Your task to perform on an android device: Add lenovo thinkpad to the cart on bestbuy.com Image 0: 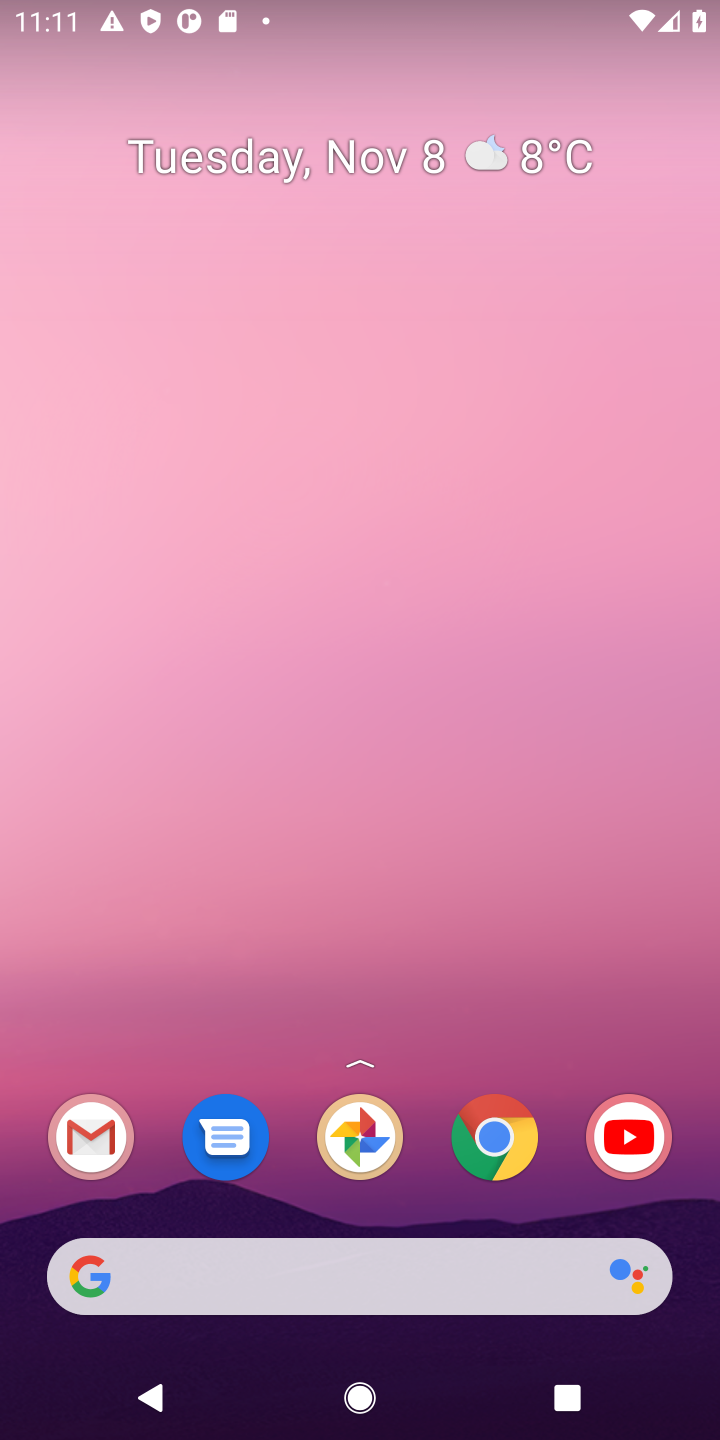
Step 0: click (473, 1138)
Your task to perform on an android device: Add lenovo thinkpad to the cart on bestbuy.com Image 1: 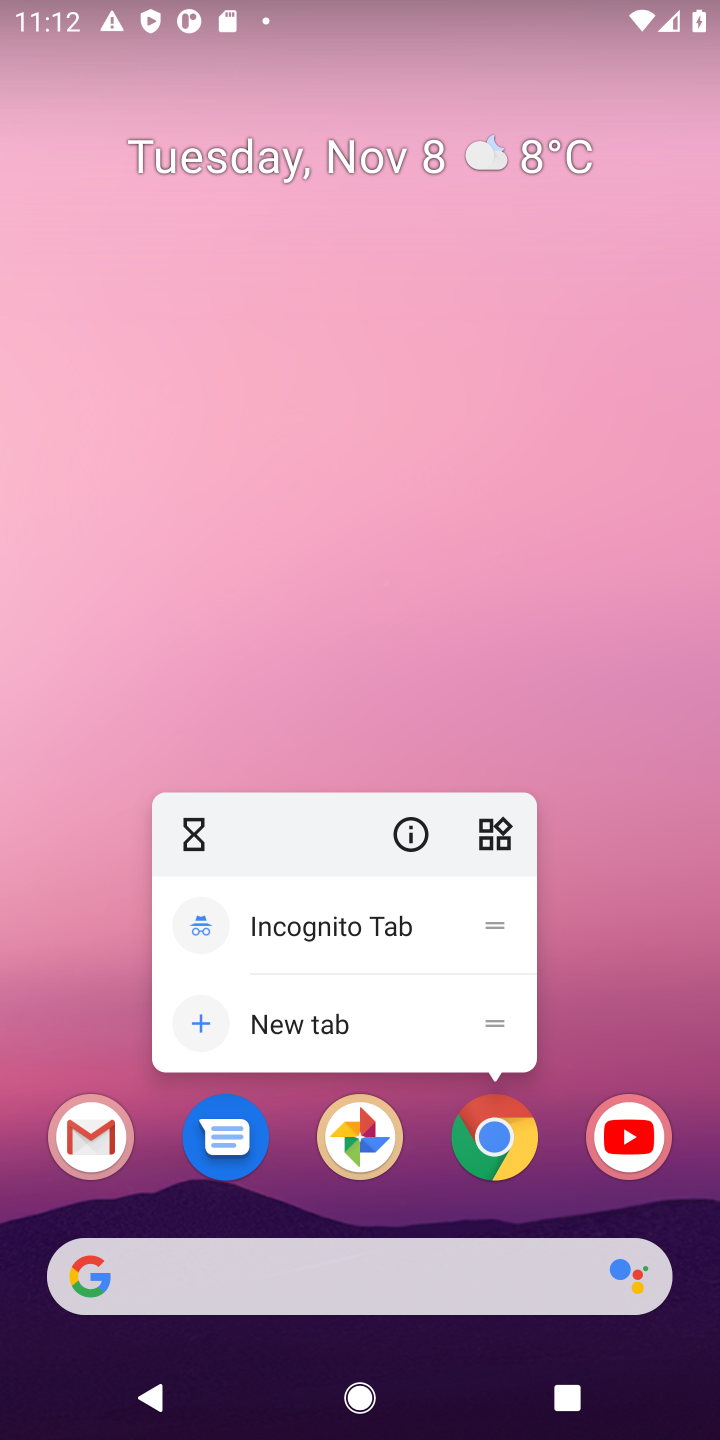
Step 1: click (490, 1134)
Your task to perform on an android device: Add lenovo thinkpad to the cart on bestbuy.com Image 2: 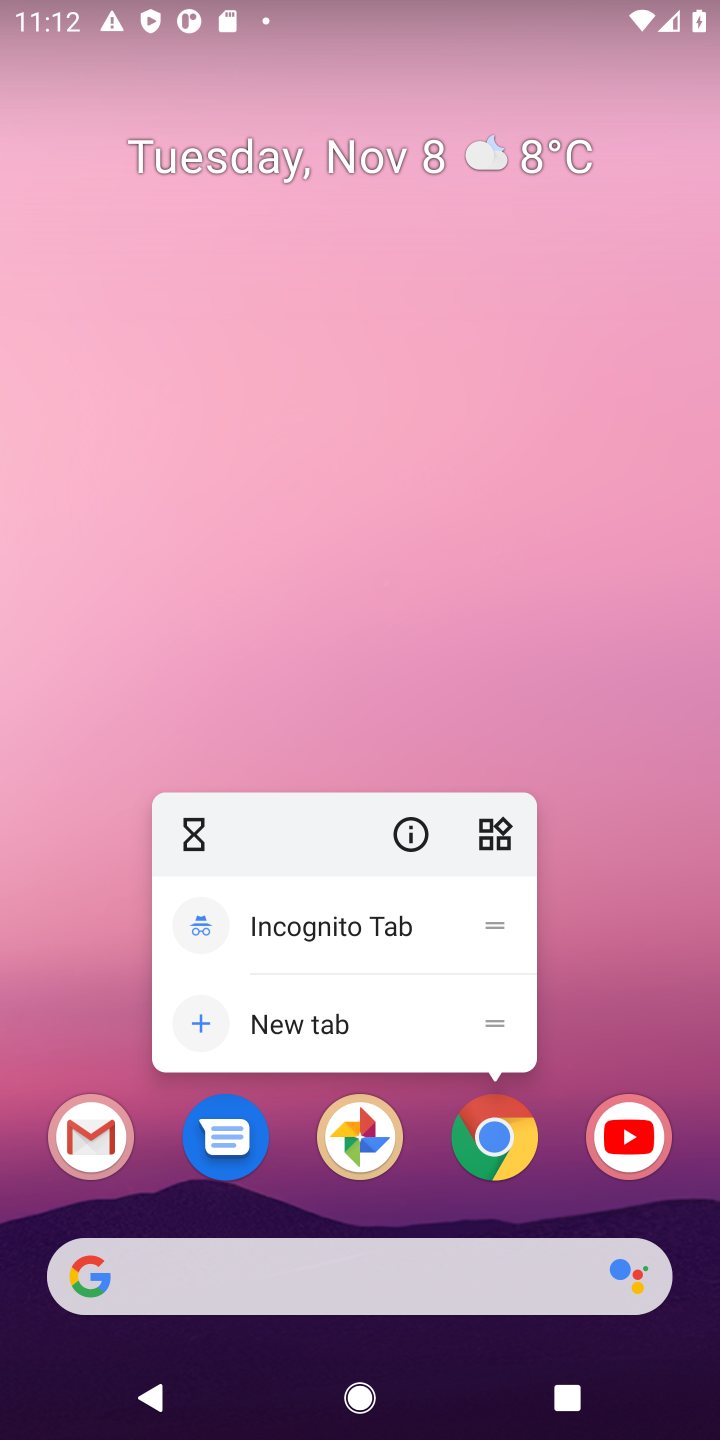
Step 2: click (477, 1156)
Your task to perform on an android device: Add lenovo thinkpad to the cart on bestbuy.com Image 3: 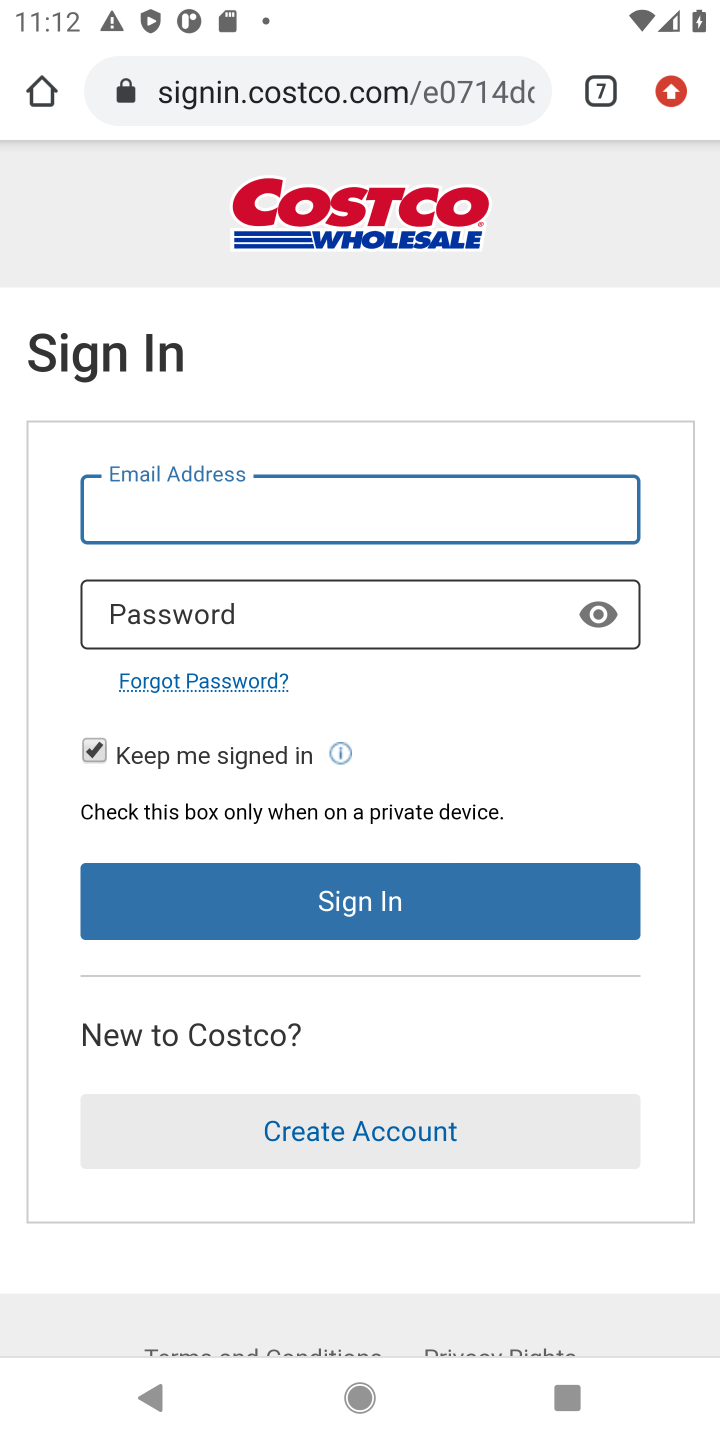
Step 3: click (595, 76)
Your task to perform on an android device: Add lenovo thinkpad to the cart on bestbuy.com Image 4: 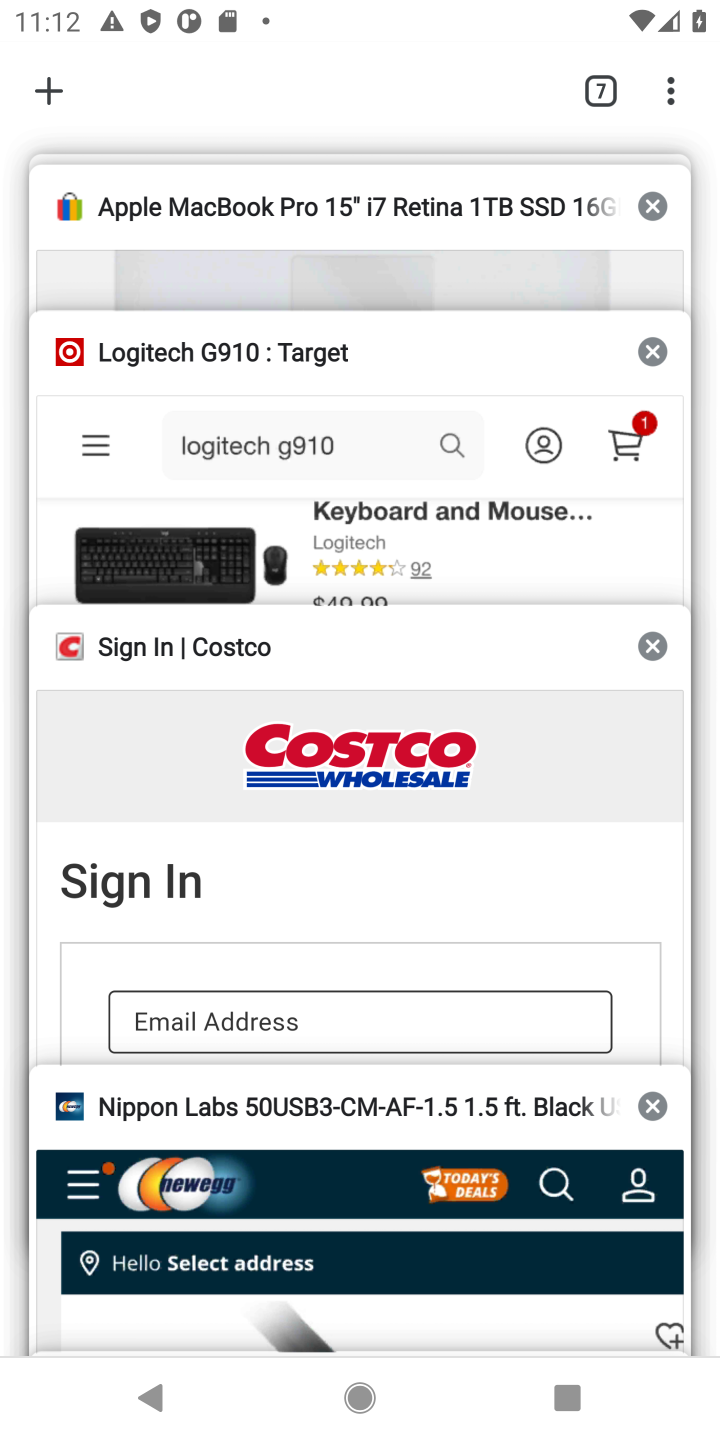
Step 4: drag from (233, 176) to (224, 452)
Your task to perform on an android device: Add lenovo thinkpad to the cart on bestbuy.com Image 5: 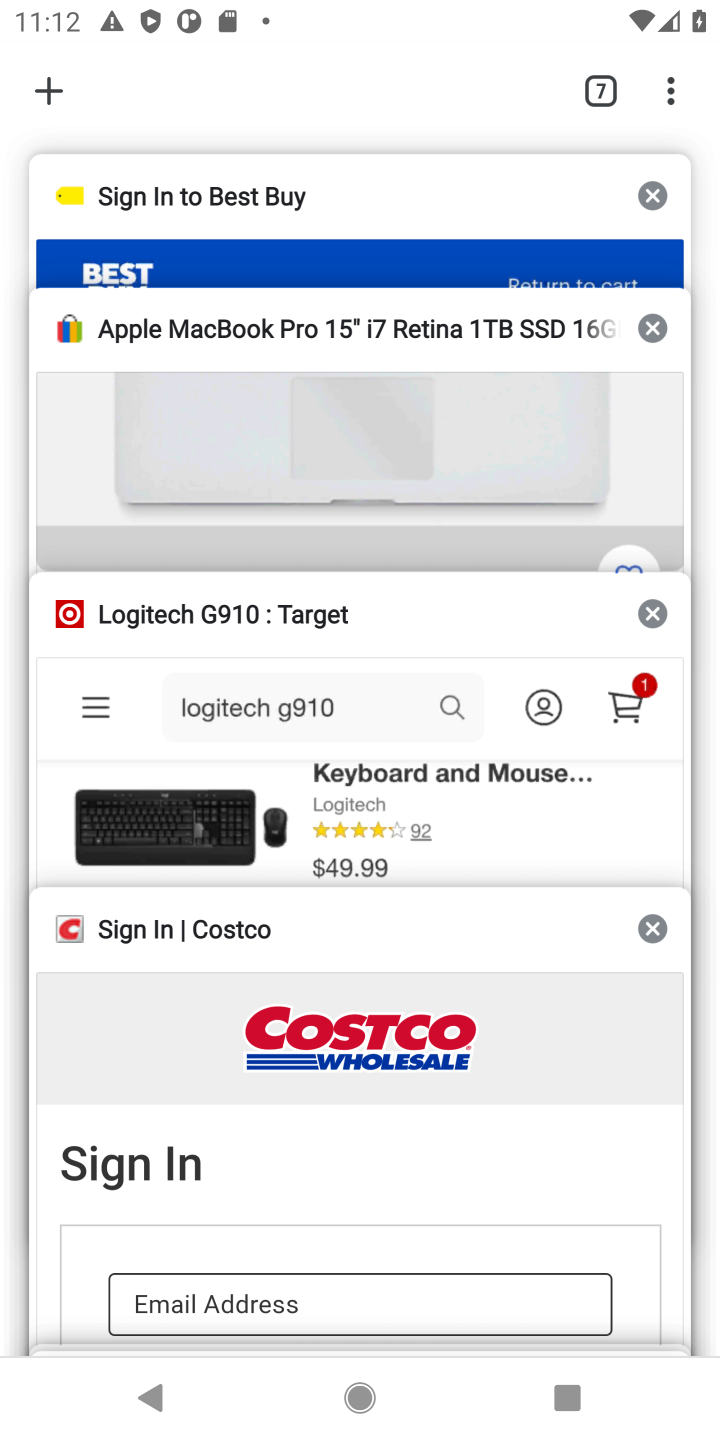
Step 5: click (296, 216)
Your task to perform on an android device: Add lenovo thinkpad to the cart on bestbuy.com Image 6: 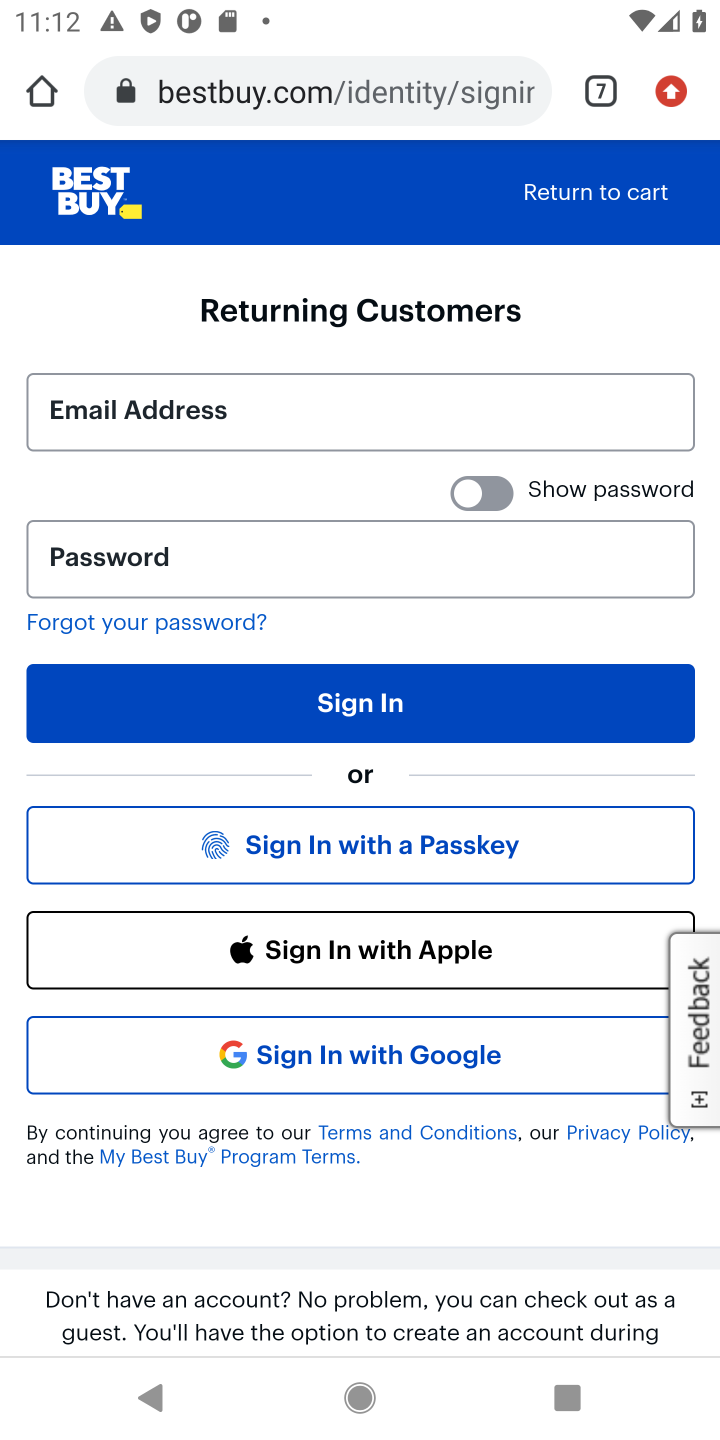
Step 6: click (620, 181)
Your task to perform on an android device: Add lenovo thinkpad to the cart on bestbuy.com Image 7: 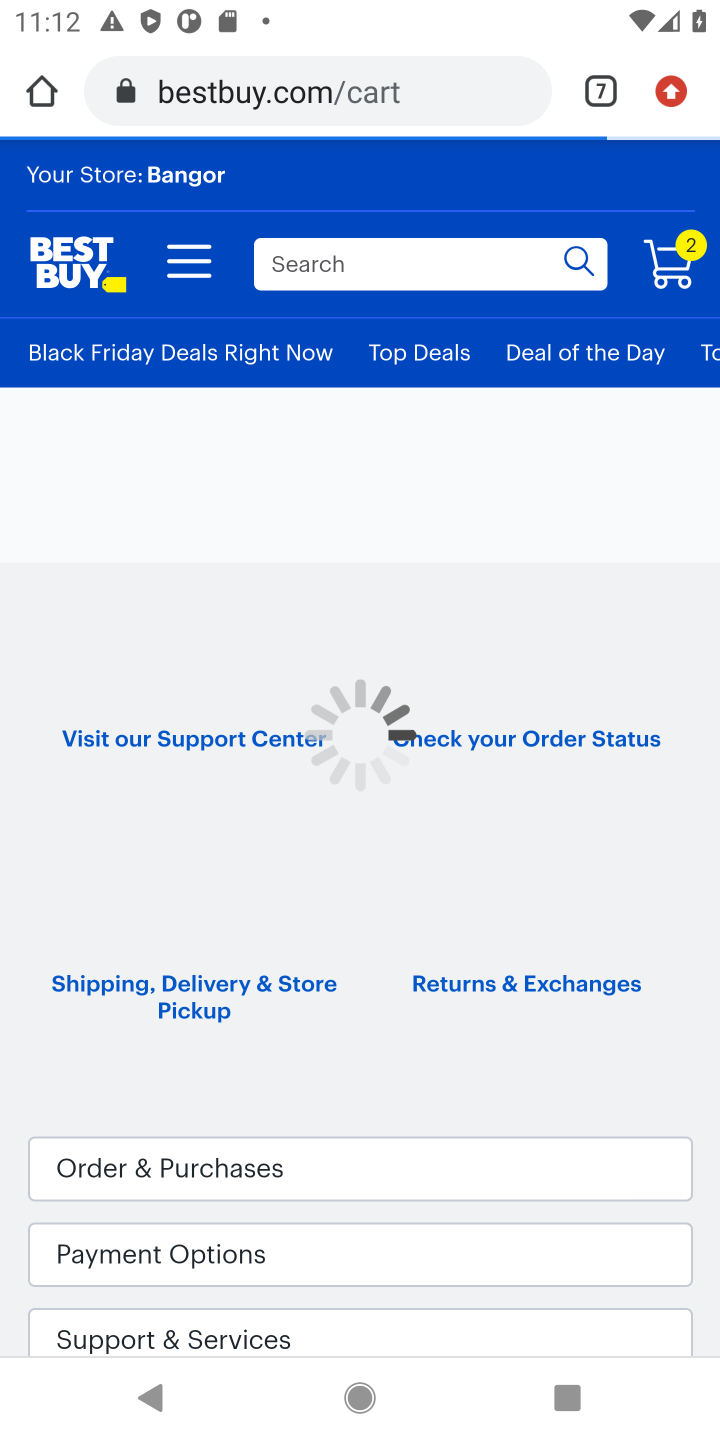
Step 7: click (432, 273)
Your task to perform on an android device: Add lenovo thinkpad to the cart on bestbuy.com Image 8: 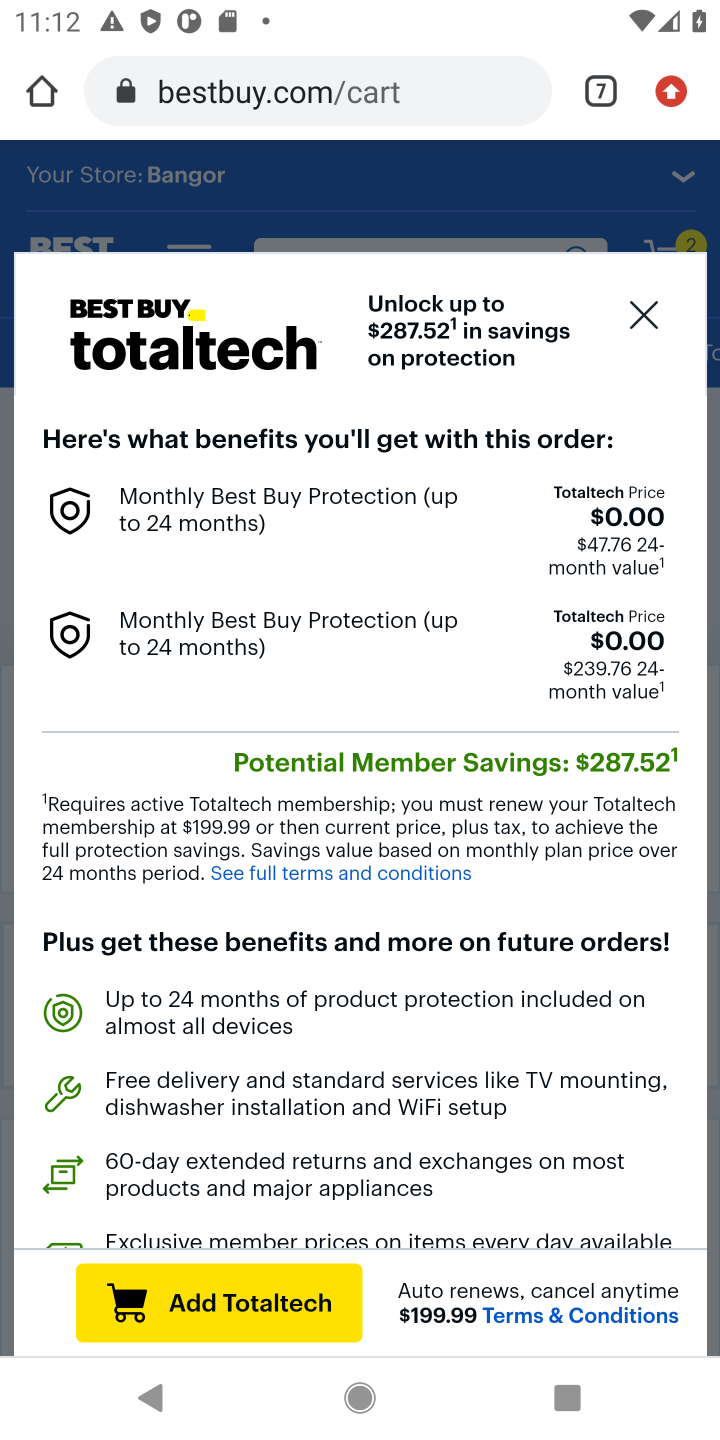
Step 8: type "lenovo thinkpad"
Your task to perform on an android device: Add lenovo thinkpad to the cart on bestbuy.com Image 9: 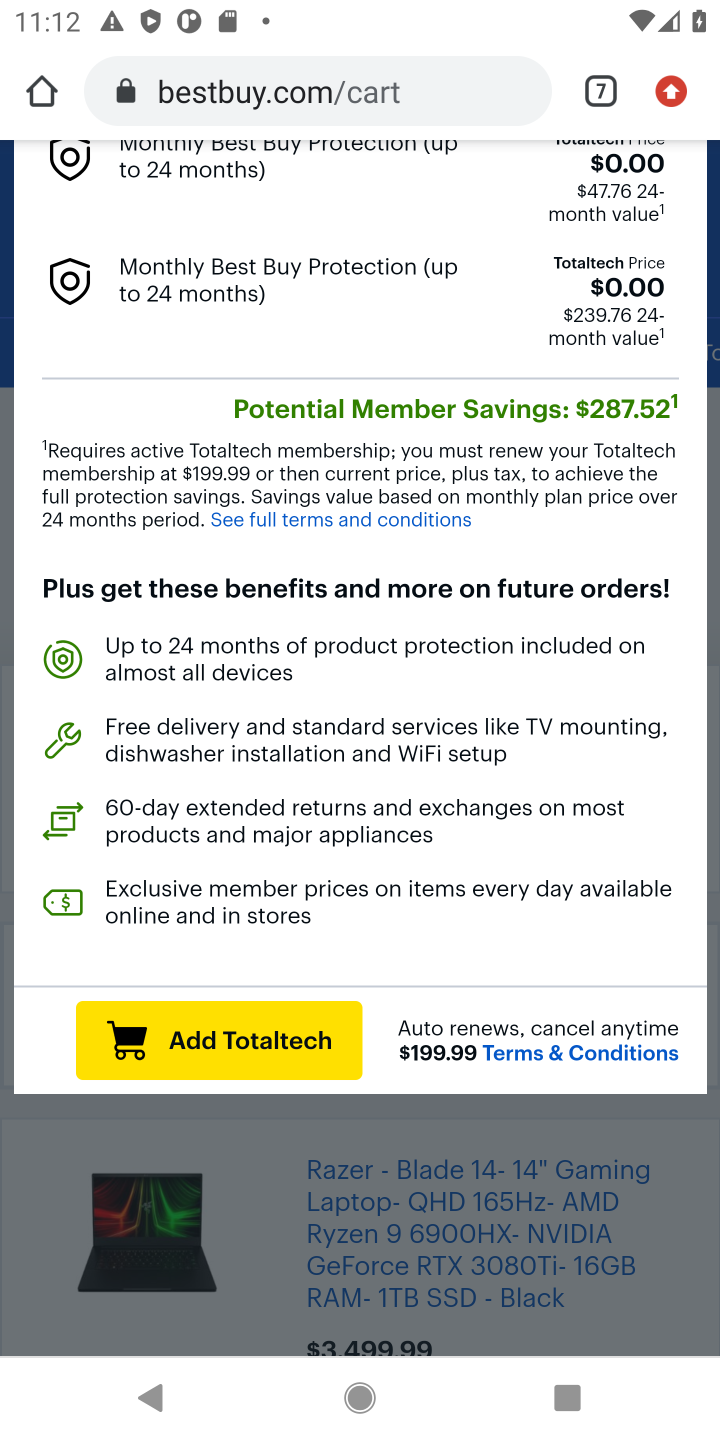
Step 9: drag from (515, 592) to (498, 1032)
Your task to perform on an android device: Add lenovo thinkpad to the cart on bestbuy.com Image 10: 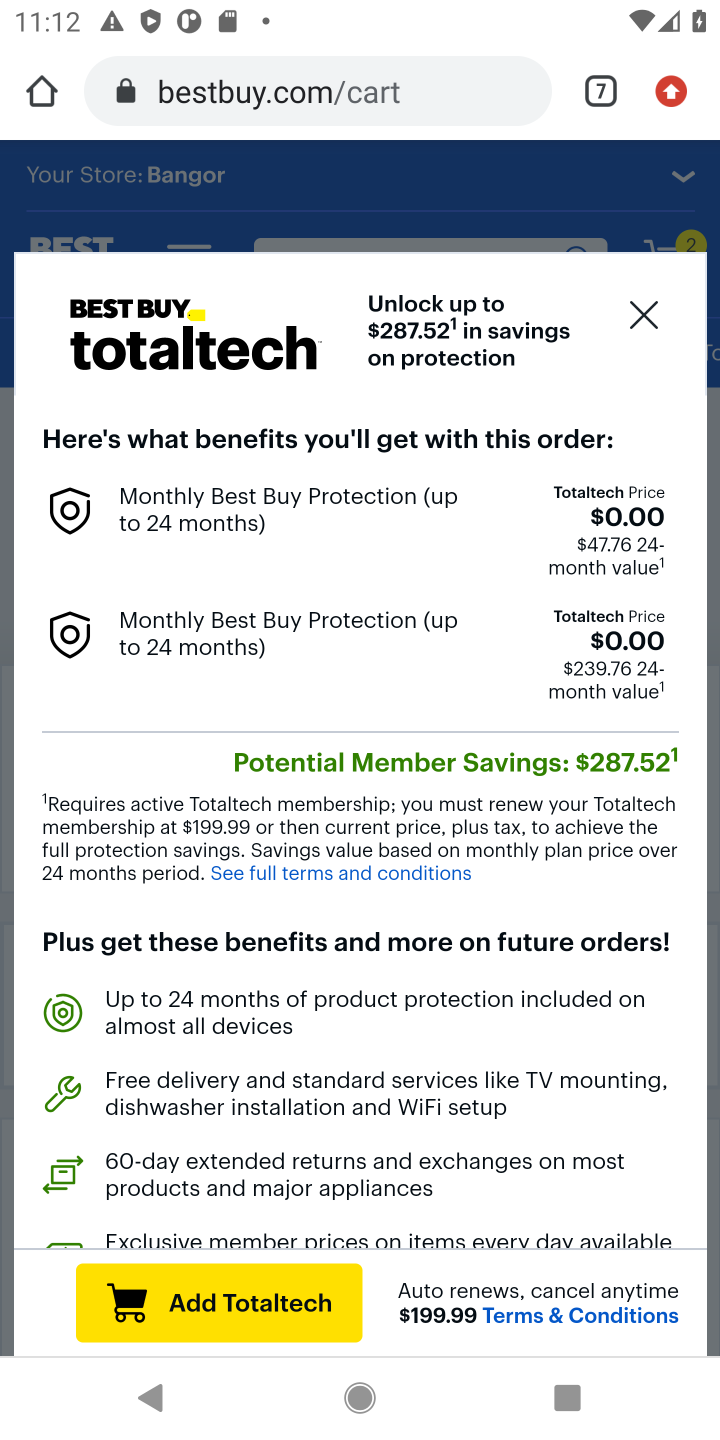
Step 10: click (639, 308)
Your task to perform on an android device: Add lenovo thinkpad to the cart on bestbuy.com Image 11: 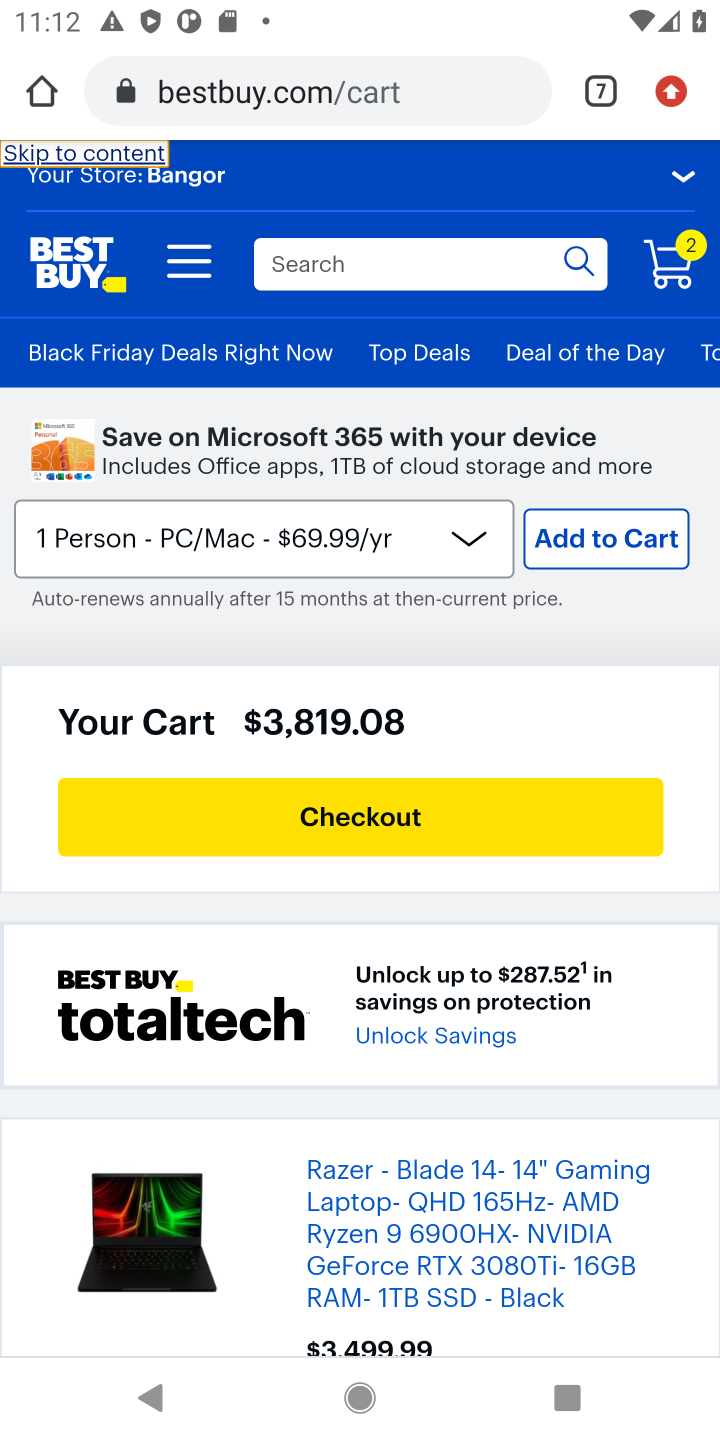
Step 11: click (407, 266)
Your task to perform on an android device: Add lenovo thinkpad to the cart on bestbuy.com Image 12: 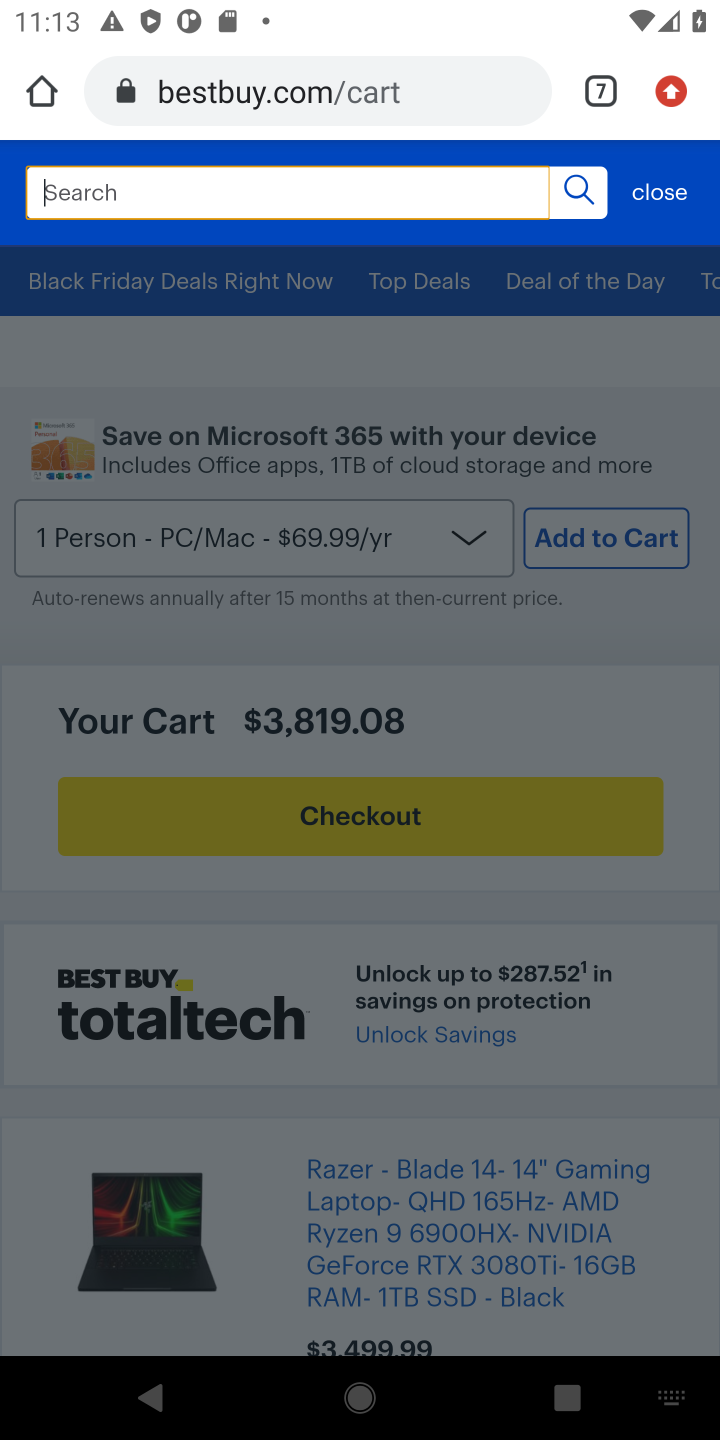
Step 12: type "lenovo thinkpad"
Your task to perform on an android device: Add lenovo thinkpad to the cart on bestbuy.com Image 13: 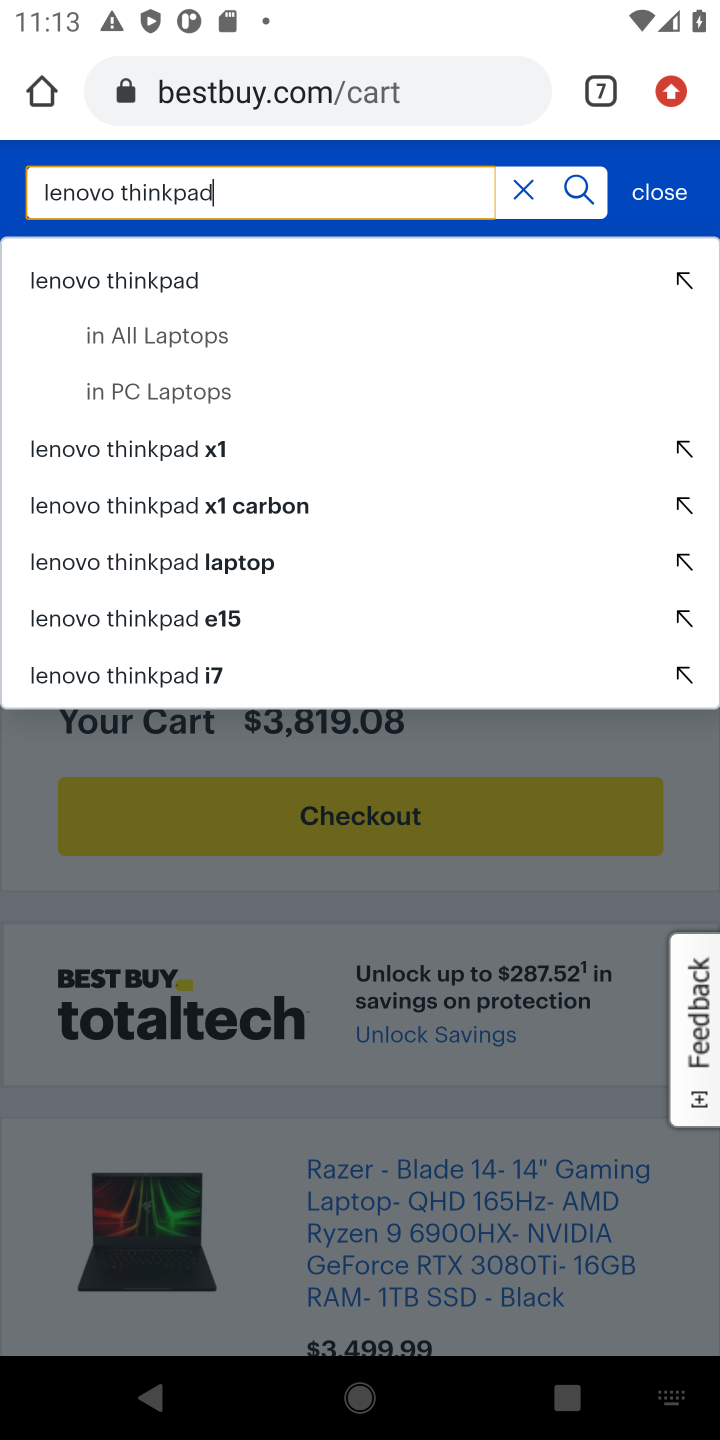
Step 13: click (126, 270)
Your task to perform on an android device: Add lenovo thinkpad to the cart on bestbuy.com Image 14: 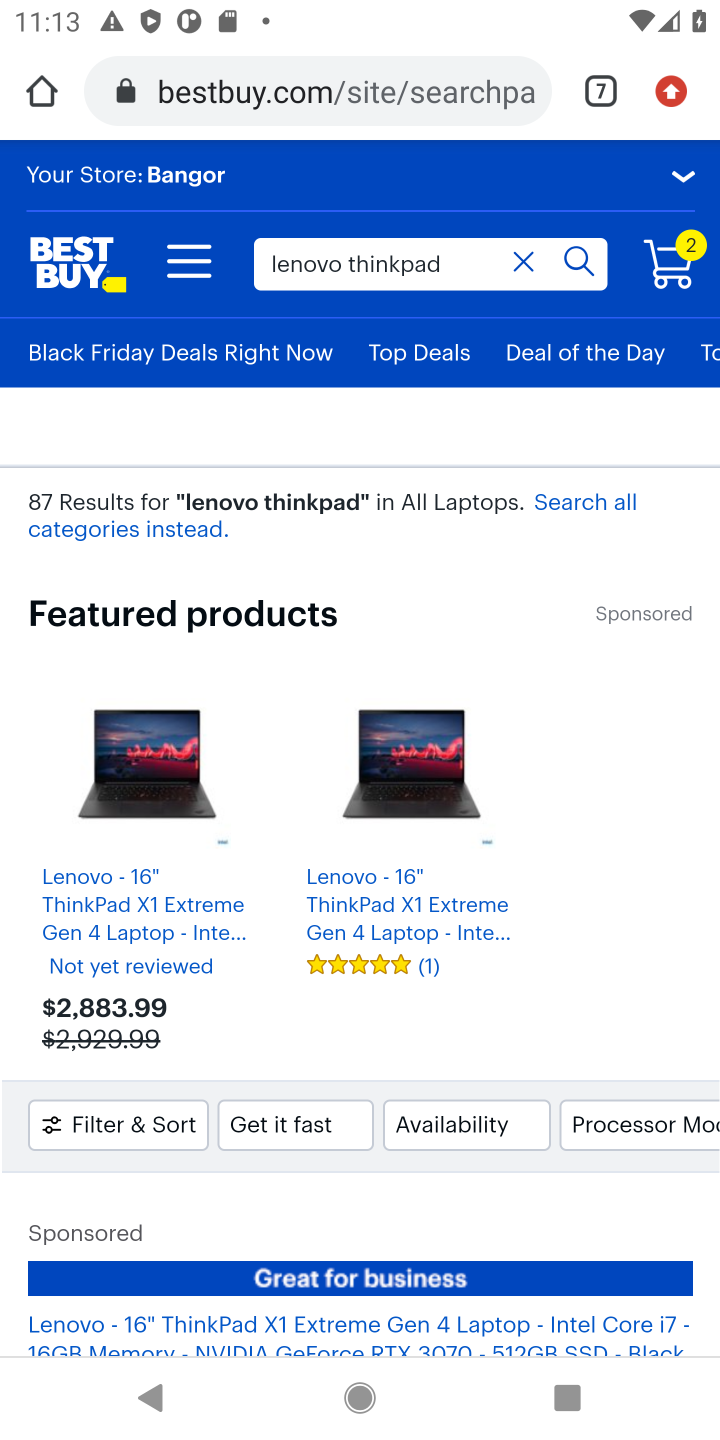
Step 14: drag from (389, 1227) to (409, 501)
Your task to perform on an android device: Add lenovo thinkpad to the cart on bestbuy.com Image 15: 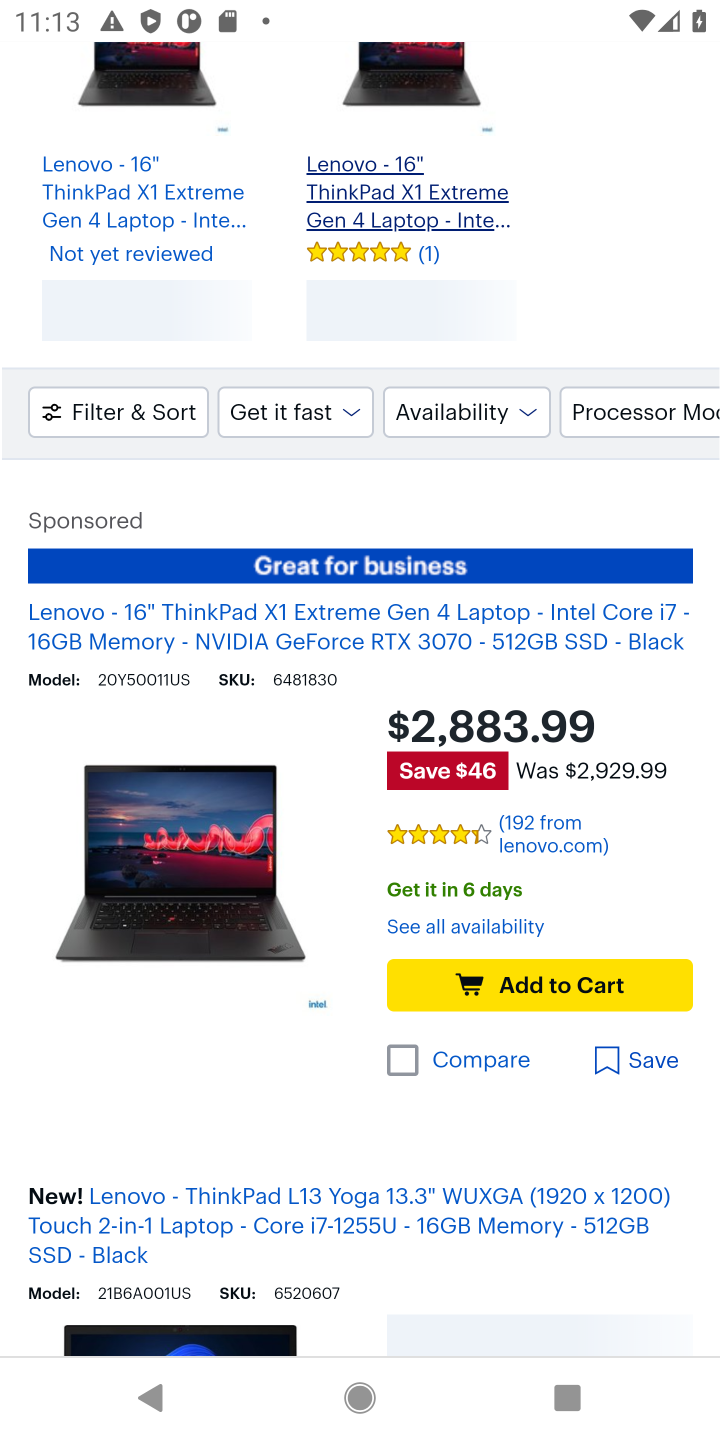
Step 15: click (577, 990)
Your task to perform on an android device: Add lenovo thinkpad to the cart on bestbuy.com Image 16: 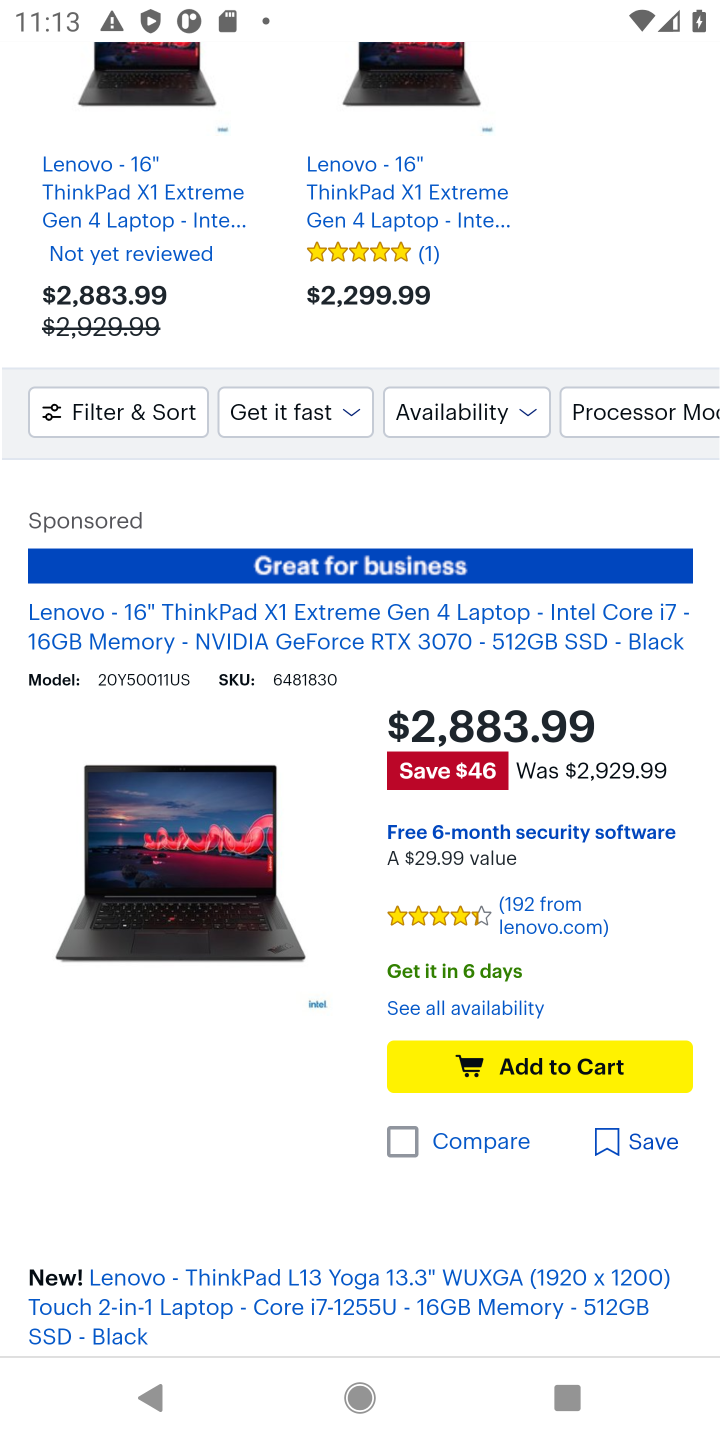
Step 16: task complete